Your task to perform on an android device: open device folders in google photos Image 0: 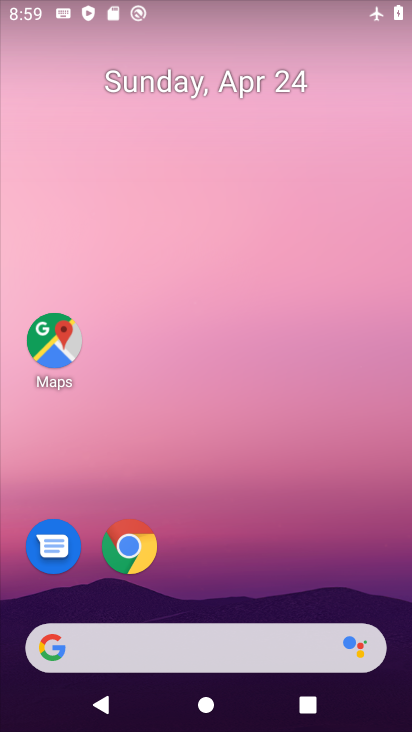
Step 0: drag from (354, 581) to (221, 30)
Your task to perform on an android device: open device folders in google photos Image 1: 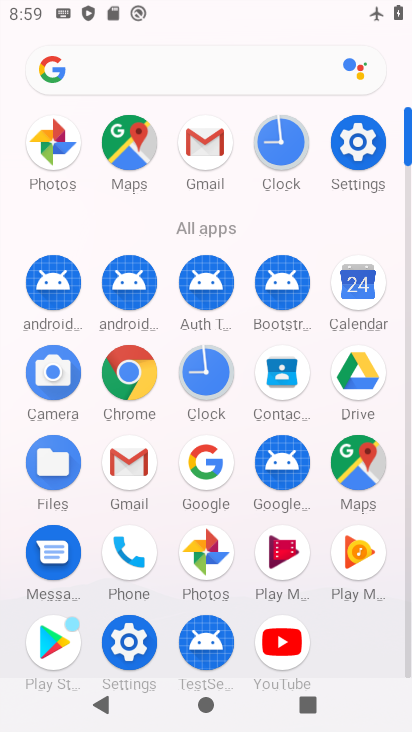
Step 1: click (63, 148)
Your task to perform on an android device: open device folders in google photos Image 2: 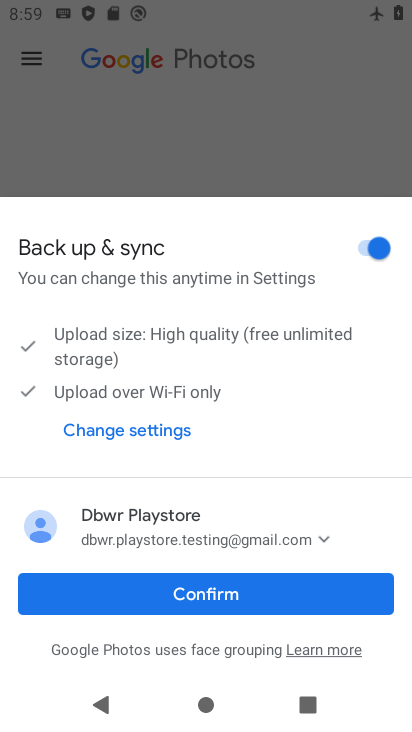
Step 2: click (253, 600)
Your task to perform on an android device: open device folders in google photos Image 3: 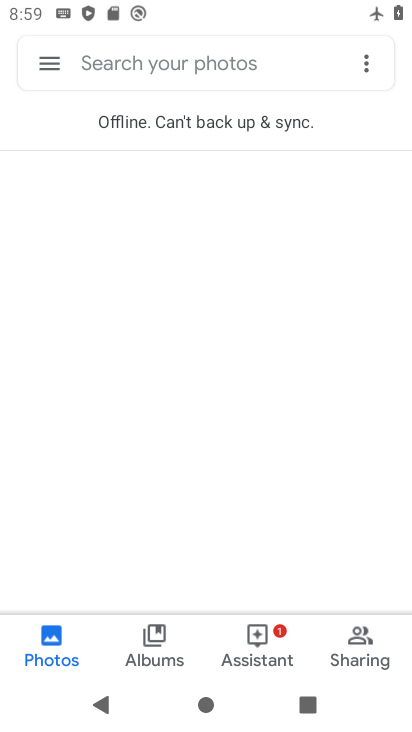
Step 3: click (46, 58)
Your task to perform on an android device: open device folders in google photos Image 4: 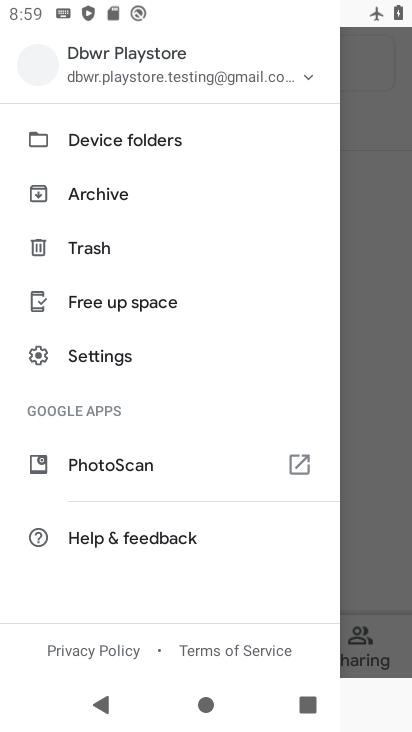
Step 4: click (127, 147)
Your task to perform on an android device: open device folders in google photos Image 5: 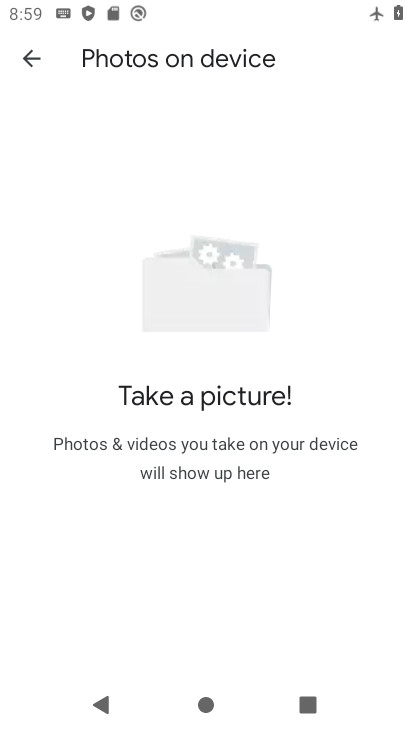
Step 5: task complete